Your task to perform on an android device: change notifications settings Image 0: 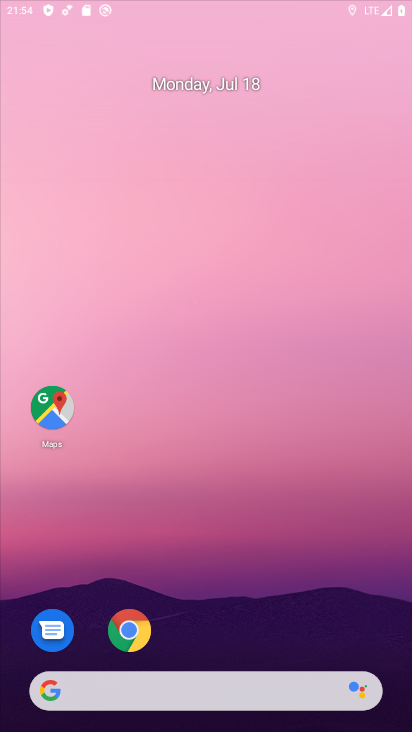
Step 0: click (226, 176)
Your task to perform on an android device: change notifications settings Image 1: 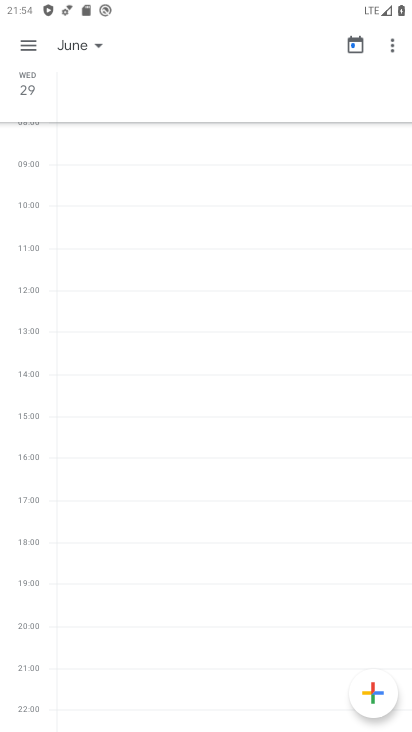
Step 1: press home button
Your task to perform on an android device: change notifications settings Image 2: 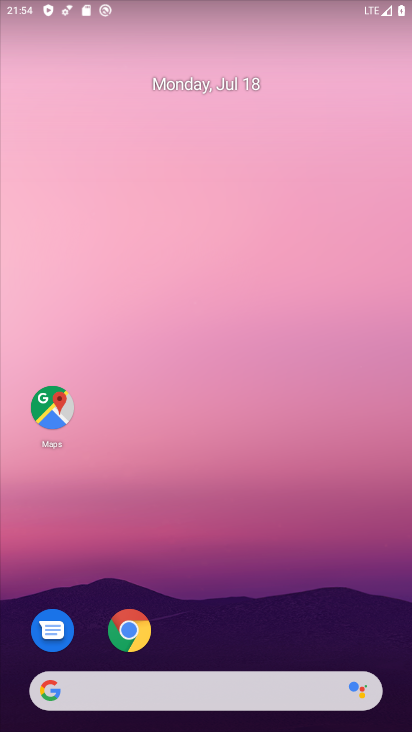
Step 2: drag from (283, 536) to (256, 197)
Your task to perform on an android device: change notifications settings Image 3: 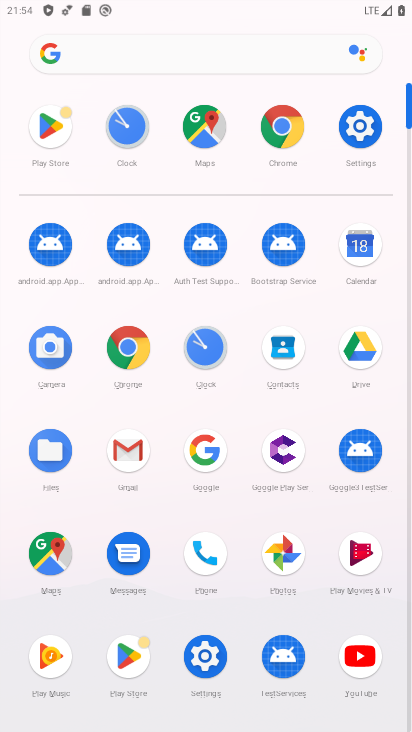
Step 3: click (359, 125)
Your task to perform on an android device: change notifications settings Image 4: 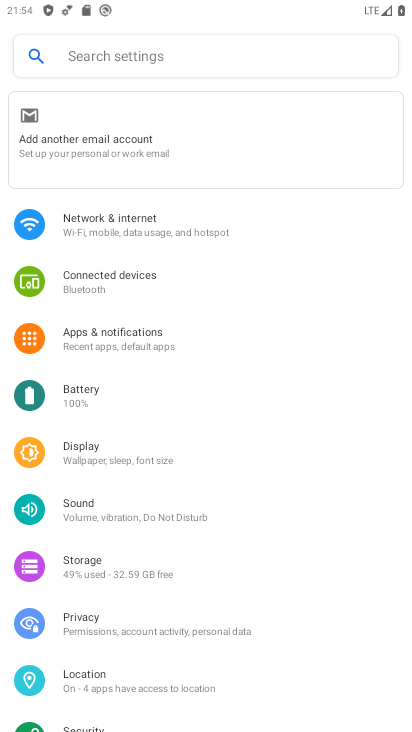
Step 4: click (159, 336)
Your task to perform on an android device: change notifications settings Image 5: 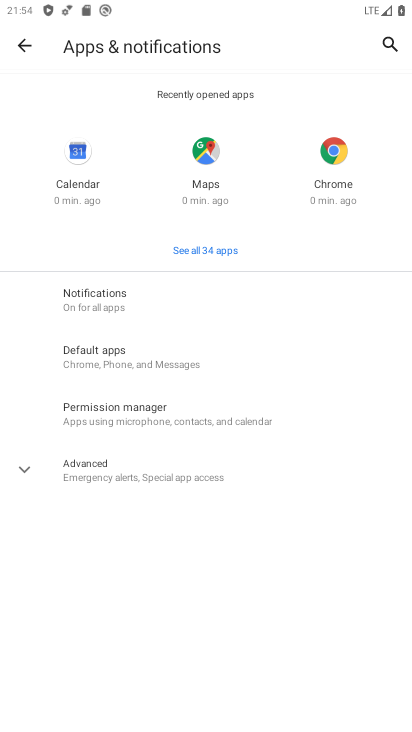
Step 5: click (104, 291)
Your task to perform on an android device: change notifications settings Image 6: 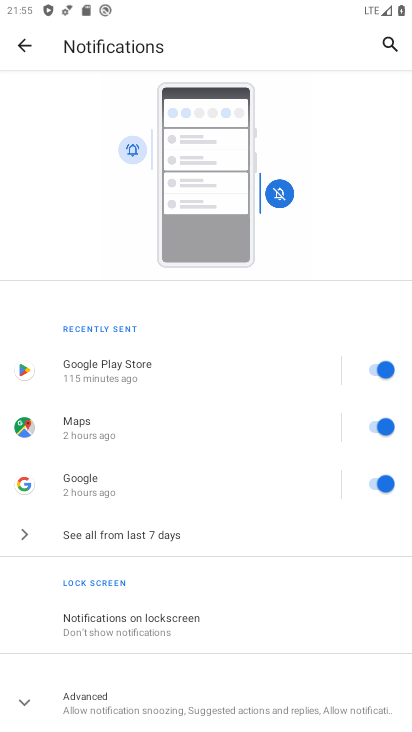
Step 6: click (168, 526)
Your task to perform on an android device: change notifications settings Image 7: 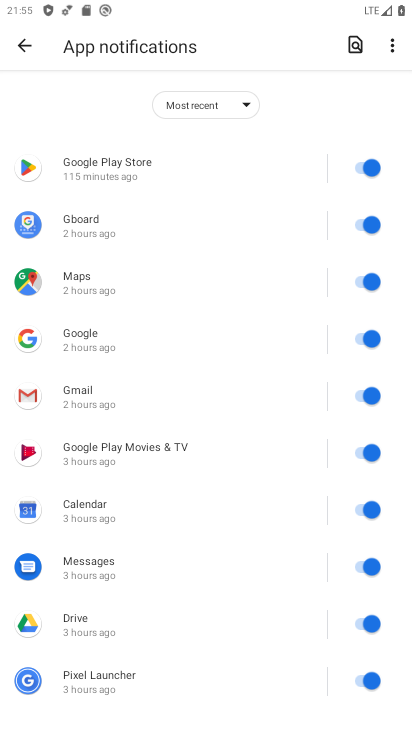
Step 7: click (362, 168)
Your task to perform on an android device: change notifications settings Image 8: 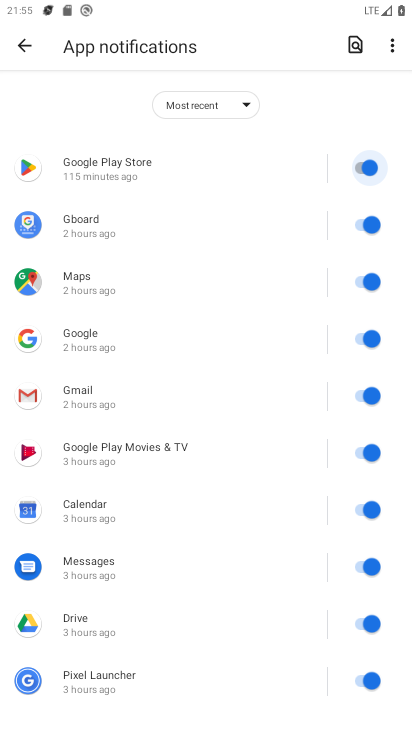
Step 8: click (376, 238)
Your task to perform on an android device: change notifications settings Image 9: 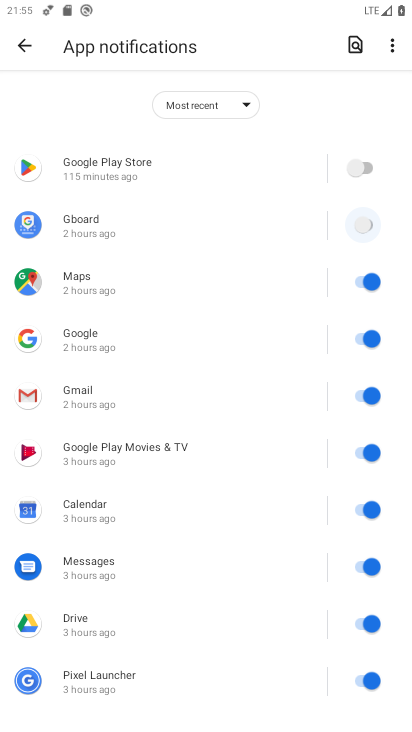
Step 9: click (374, 280)
Your task to perform on an android device: change notifications settings Image 10: 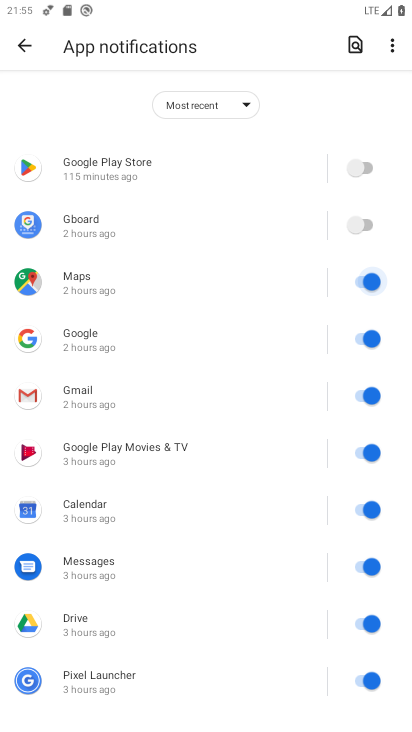
Step 10: click (370, 341)
Your task to perform on an android device: change notifications settings Image 11: 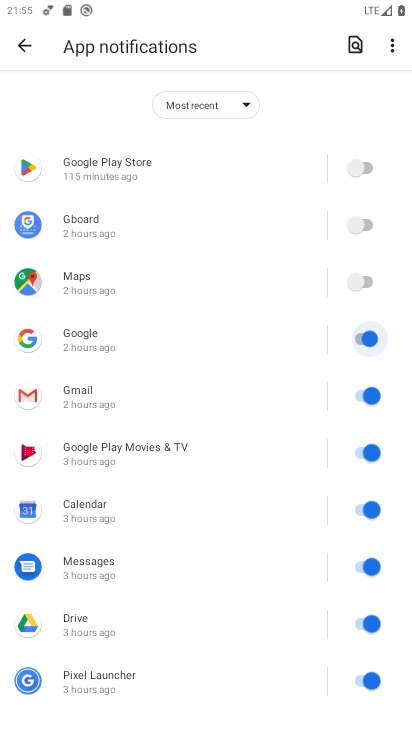
Step 11: click (365, 403)
Your task to perform on an android device: change notifications settings Image 12: 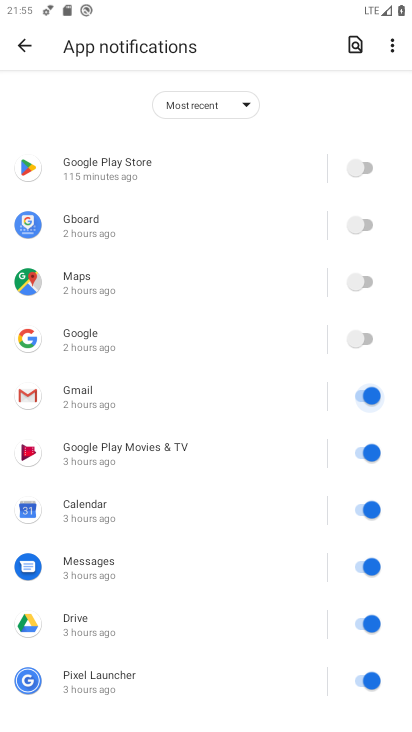
Step 12: click (365, 445)
Your task to perform on an android device: change notifications settings Image 13: 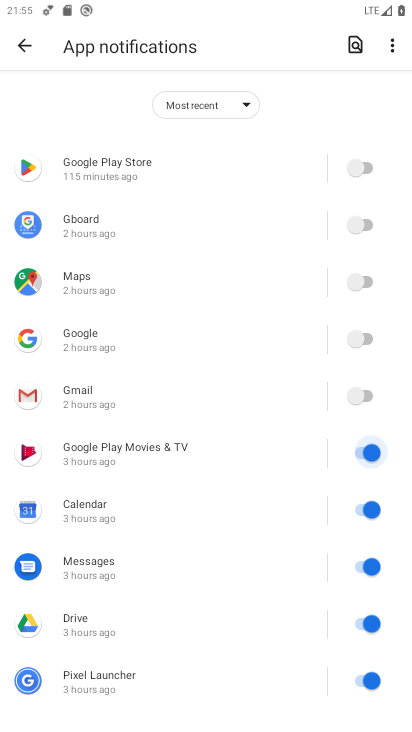
Step 13: click (367, 506)
Your task to perform on an android device: change notifications settings Image 14: 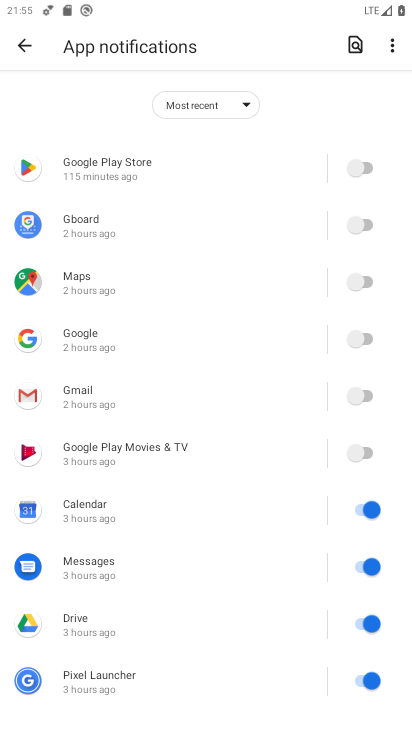
Step 14: click (369, 578)
Your task to perform on an android device: change notifications settings Image 15: 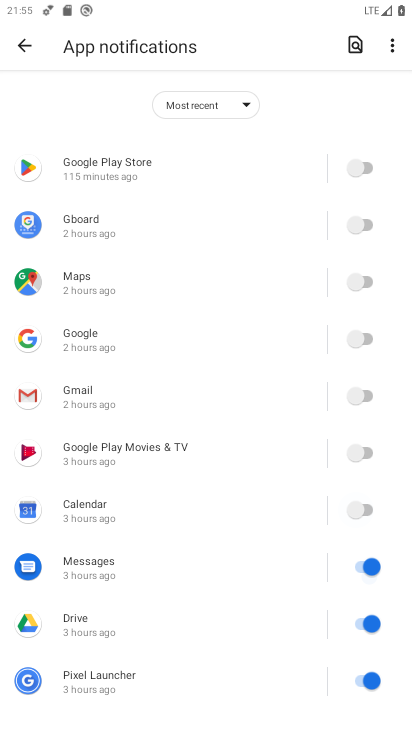
Step 15: click (369, 625)
Your task to perform on an android device: change notifications settings Image 16: 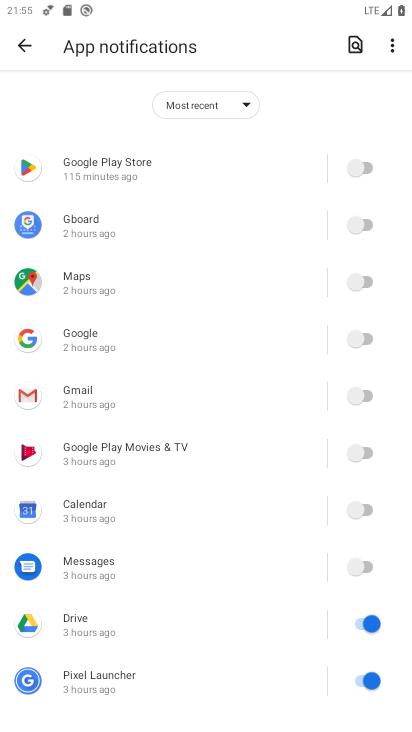
Step 16: click (369, 676)
Your task to perform on an android device: change notifications settings Image 17: 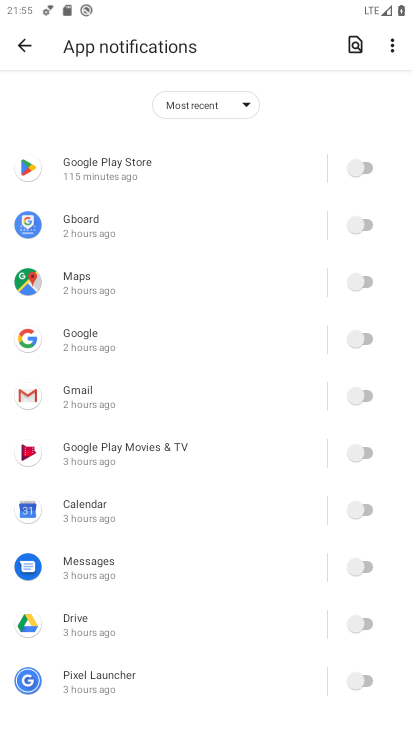
Step 17: task complete